Your task to perform on an android device: turn on sleep mode Image 0: 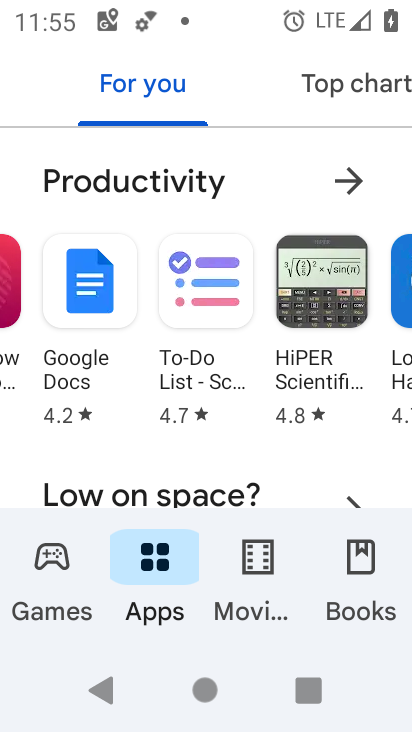
Step 0: task impossible